Your task to perform on an android device: turn on the 12-hour format for clock Image 0: 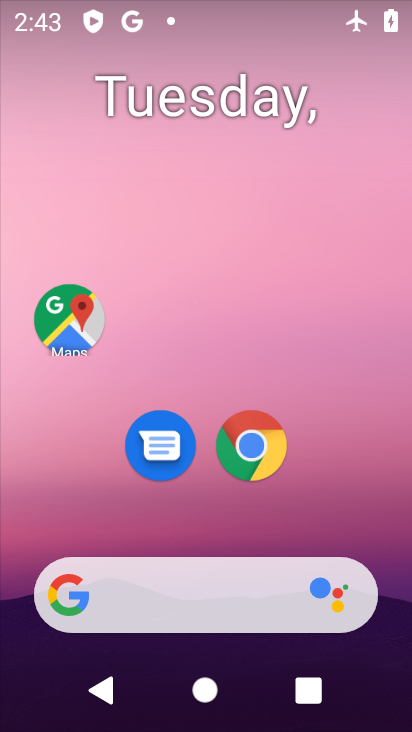
Step 0: drag from (285, 666) to (347, 143)
Your task to perform on an android device: turn on the 12-hour format for clock Image 1: 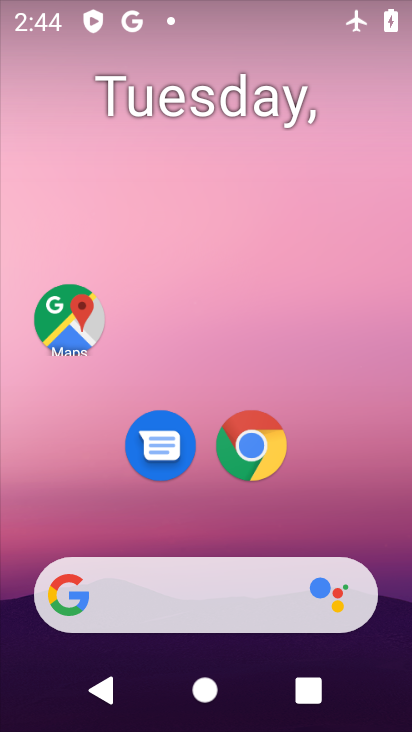
Step 1: drag from (232, 648) to (301, 115)
Your task to perform on an android device: turn on the 12-hour format for clock Image 2: 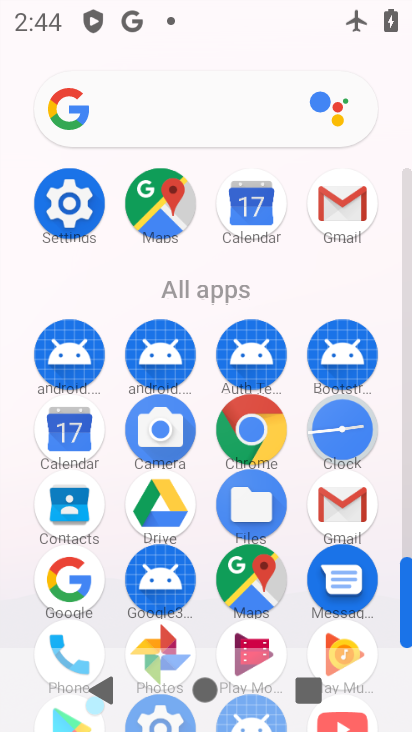
Step 2: click (356, 437)
Your task to perform on an android device: turn on the 12-hour format for clock Image 3: 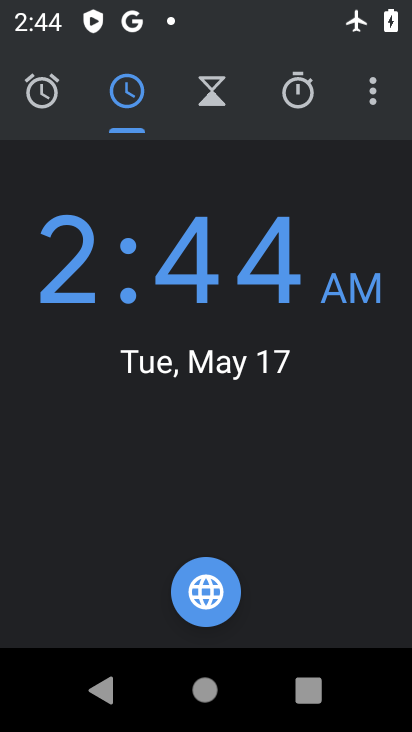
Step 3: click (376, 87)
Your task to perform on an android device: turn on the 12-hour format for clock Image 4: 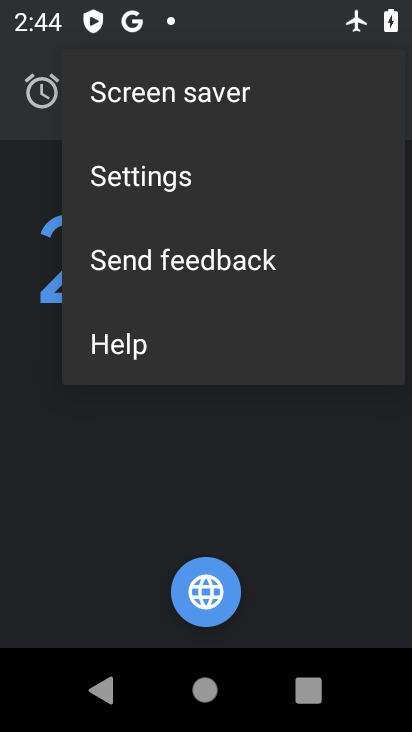
Step 4: click (251, 163)
Your task to perform on an android device: turn on the 12-hour format for clock Image 5: 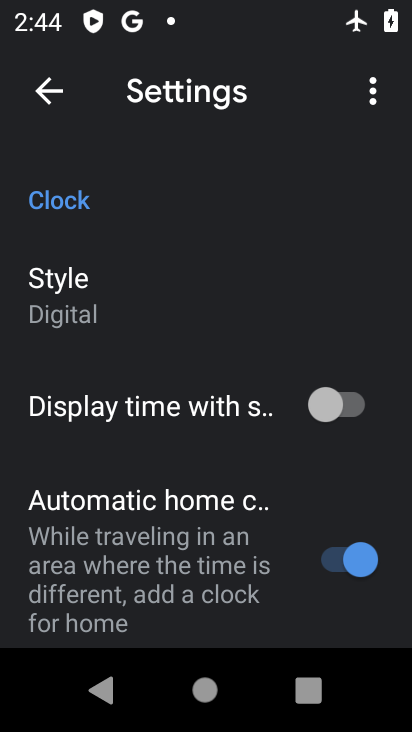
Step 5: drag from (341, 563) to (308, 2)
Your task to perform on an android device: turn on the 12-hour format for clock Image 6: 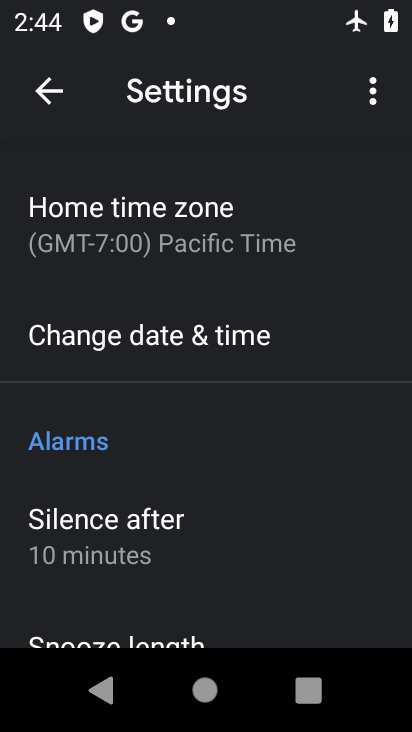
Step 6: click (321, 338)
Your task to perform on an android device: turn on the 12-hour format for clock Image 7: 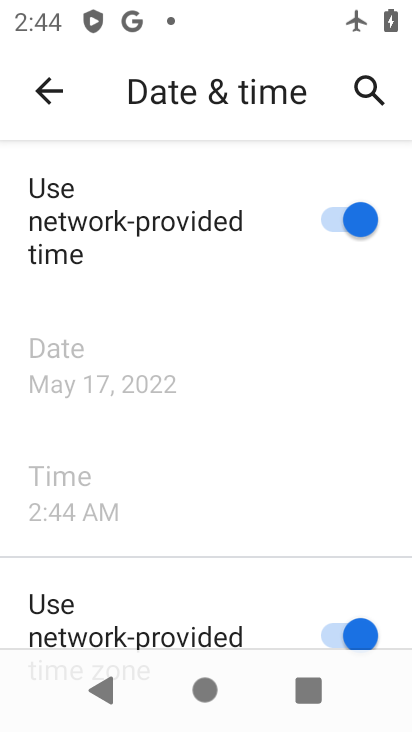
Step 7: task complete